Your task to perform on an android device: Play the new Taylor Swift video on YouTube Image 0: 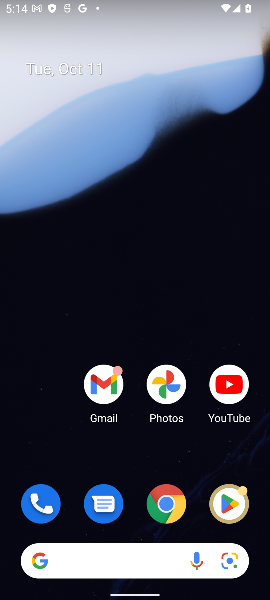
Step 0: click (241, 385)
Your task to perform on an android device: Play the new Taylor Swift video on YouTube Image 1: 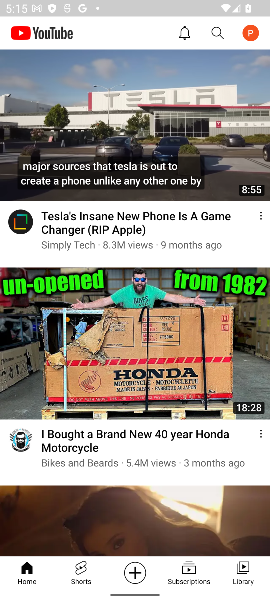
Step 1: click (213, 30)
Your task to perform on an android device: Play the new Taylor Swift video on YouTube Image 2: 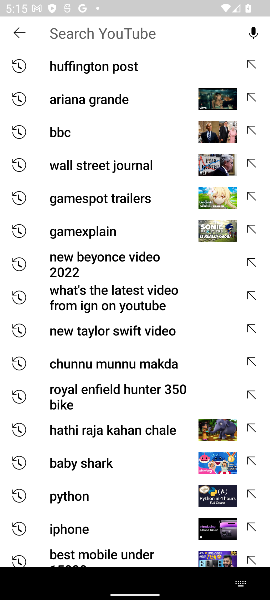
Step 2: click (133, 41)
Your task to perform on an android device: Play the new Taylor Swift video on YouTube Image 3: 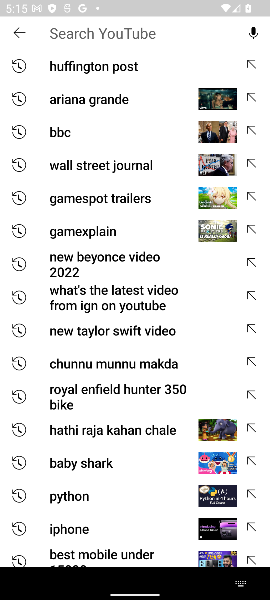
Step 3: type "new Taylor Swift video"
Your task to perform on an android device: Play the new Taylor Swift video on YouTube Image 4: 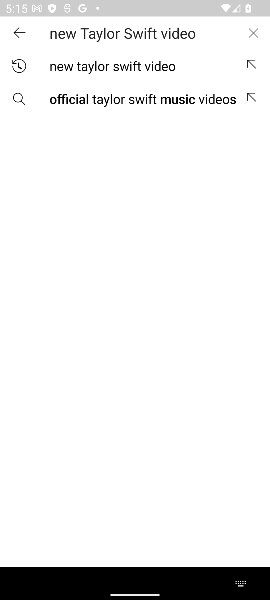
Step 4: click (117, 61)
Your task to perform on an android device: Play the new Taylor Swift video on YouTube Image 5: 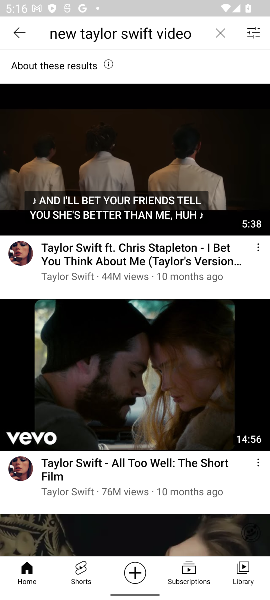
Step 5: click (179, 170)
Your task to perform on an android device: Play the new Taylor Swift video on YouTube Image 6: 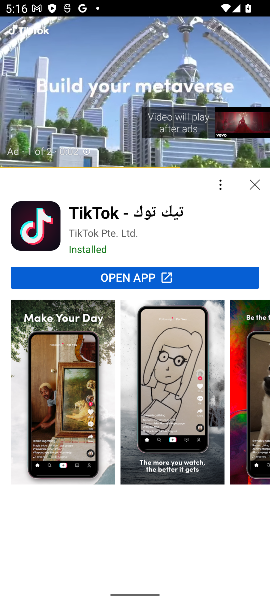
Step 6: task complete